Your task to perform on an android device: set an alarm Image 0: 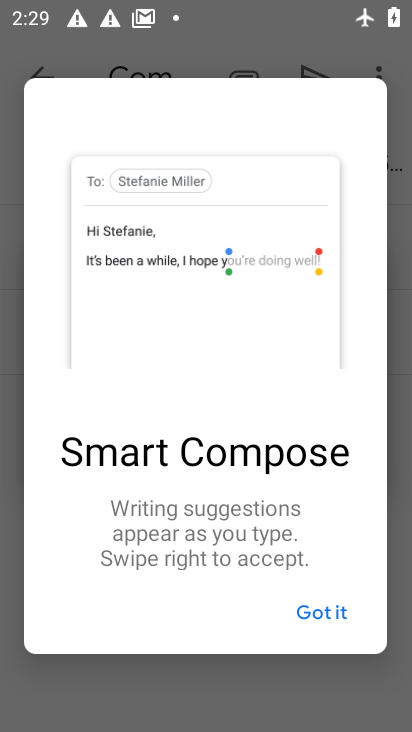
Step 0: press home button
Your task to perform on an android device: set an alarm Image 1: 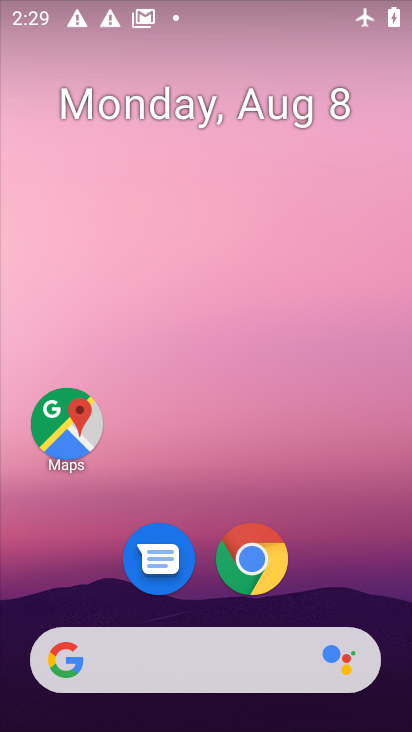
Step 1: drag from (175, 674) to (261, 131)
Your task to perform on an android device: set an alarm Image 2: 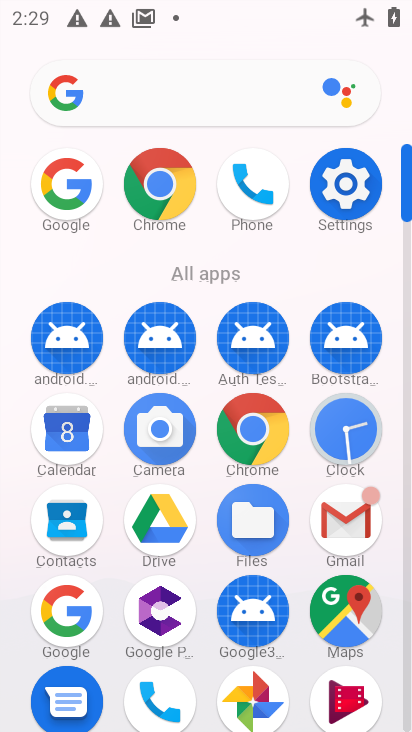
Step 2: click (348, 430)
Your task to perform on an android device: set an alarm Image 3: 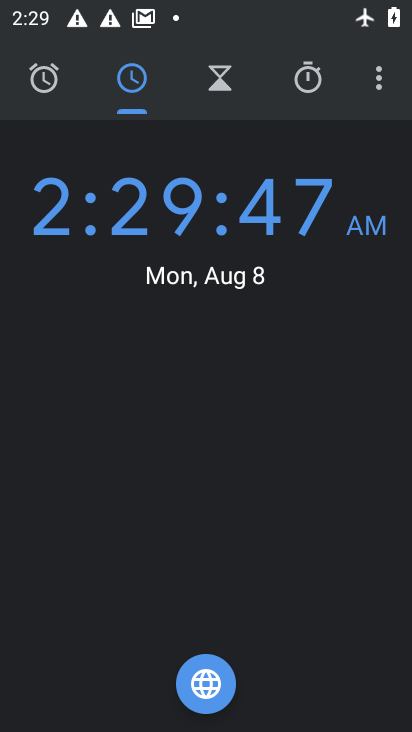
Step 3: click (40, 75)
Your task to perform on an android device: set an alarm Image 4: 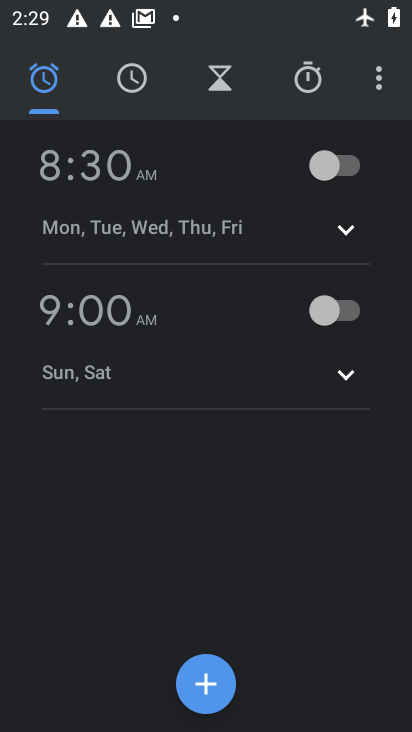
Step 4: click (93, 194)
Your task to perform on an android device: set an alarm Image 5: 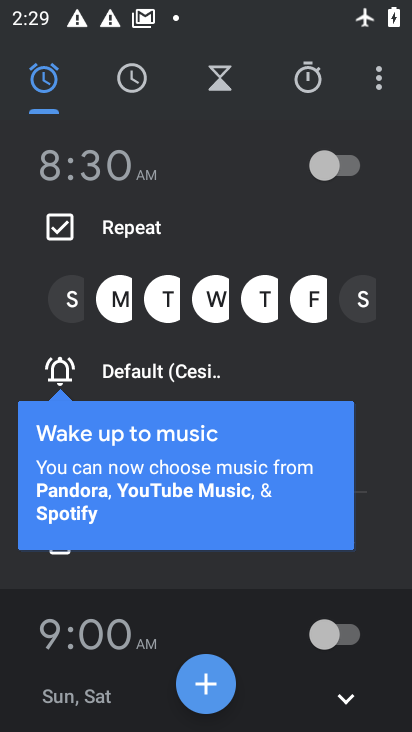
Step 5: click (155, 182)
Your task to perform on an android device: set an alarm Image 6: 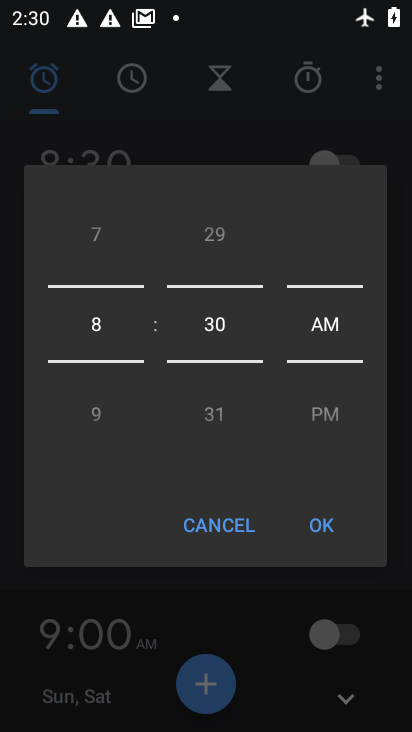
Step 6: click (105, 248)
Your task to perform on an android device: set an alarm Image 7: 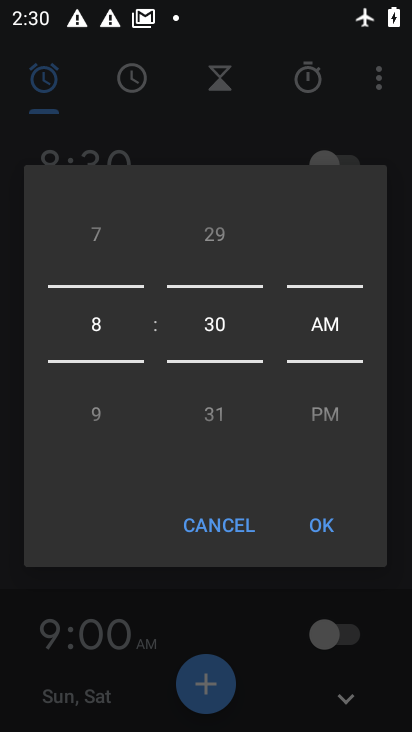
Step 7: click (105, 248)
Your task to perform on an android device: set an alarm Image 8: 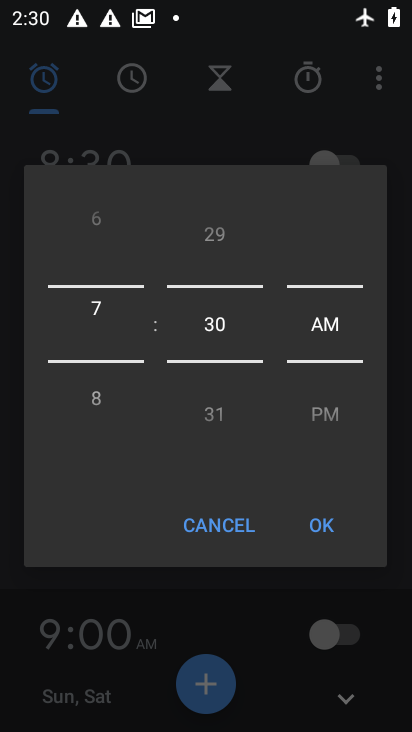
Step 8: click (105, 248)
Your task to perform on an android device: set an alarm Image 9: 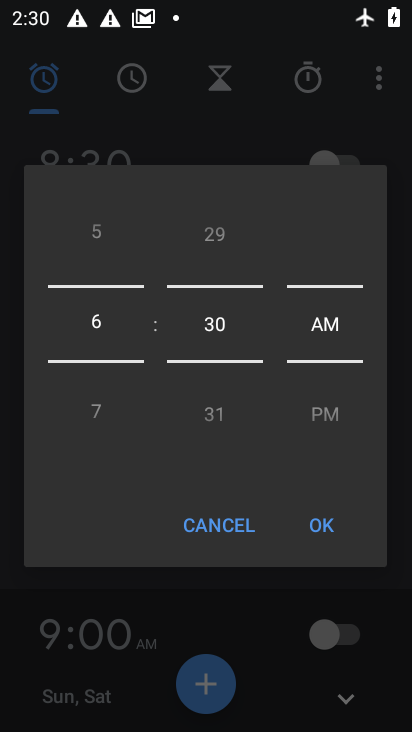
Step 9: click (105, 248)
Your task to perform on an android device: set an alarm Image 10: 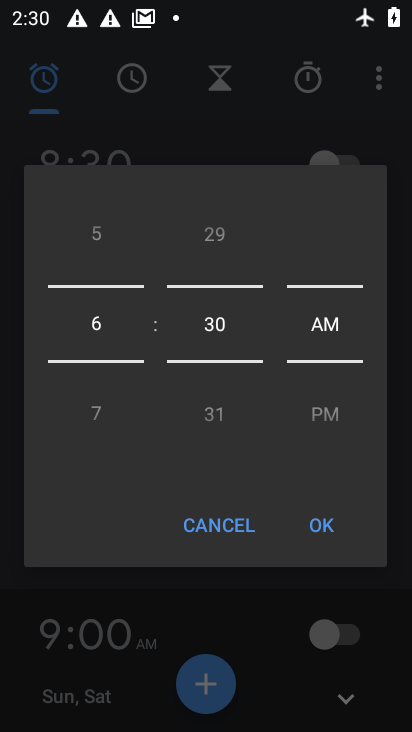
Step 10: click (105, 248)
Your task to perform on an android device: set an alarm Image 11: 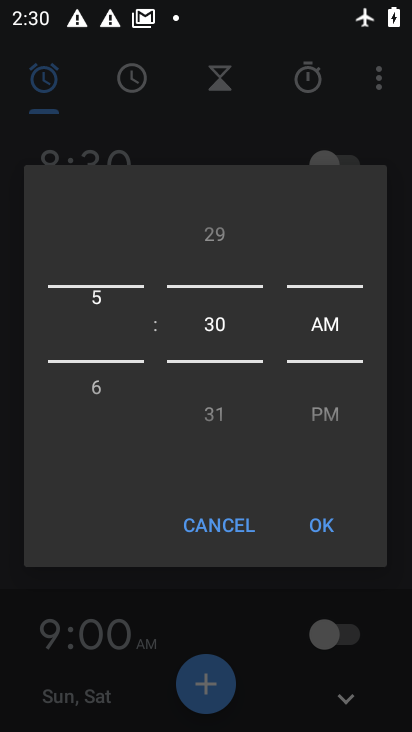
Step 11: click (105, 248)
Your task to perform on an android device: set an alarm Image 12: 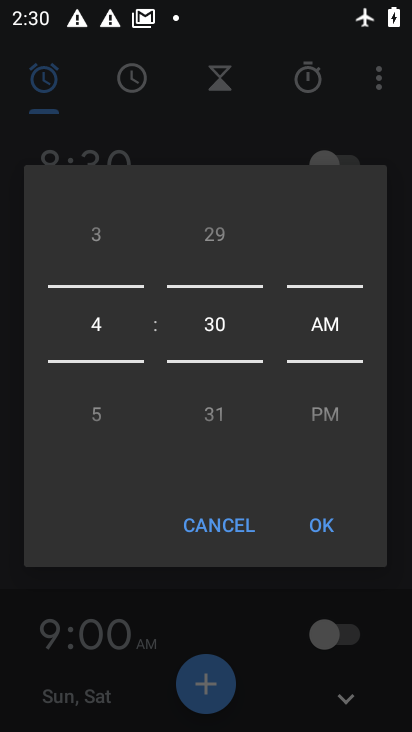
Step 12: click (105, 248)
Your task to perform on an android device: set an alarm Image 13: 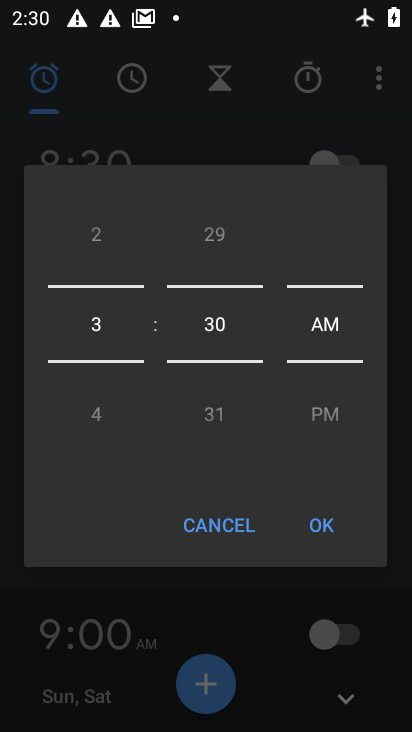
Step 13: click (239, 246)
Your task to perform on an android device: set an alarm Image 14: 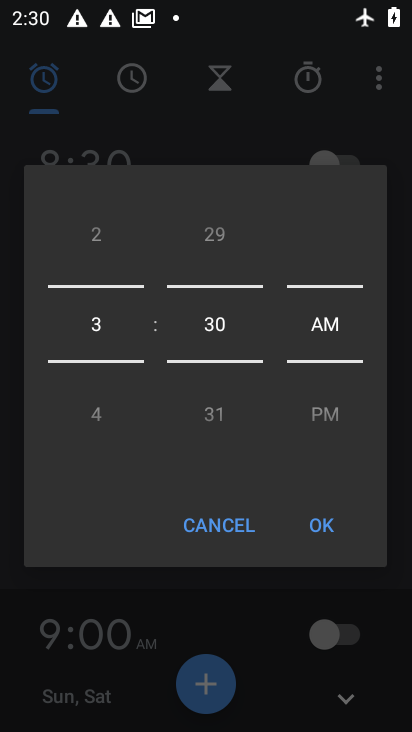
Step 14: click (239, 246)
Your task to perform on an android device: set an alarm Image 15: 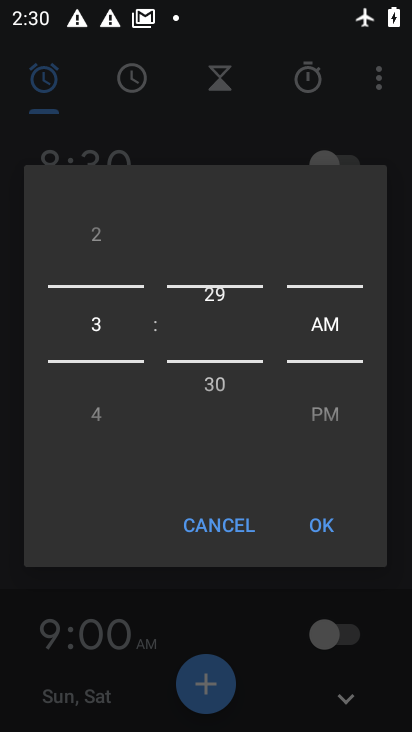
Step 15: click (239, 246)
Your task to perform on an android device: set an alarm Image 16: 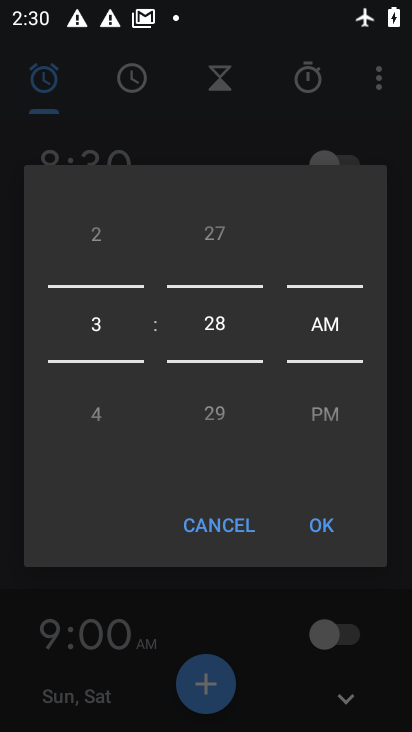
Step 16: click (239, 246)
Your task to perform on an android device: set an alarm Image 17: 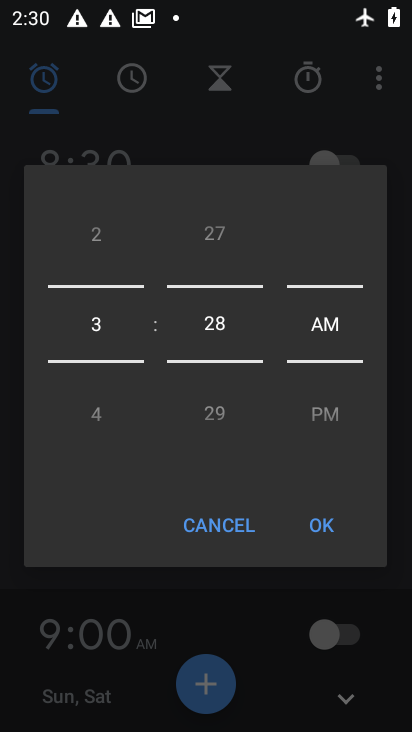
Step 17: click (239, 246)
Your task to perform on an android device: set an alarm Image 18: 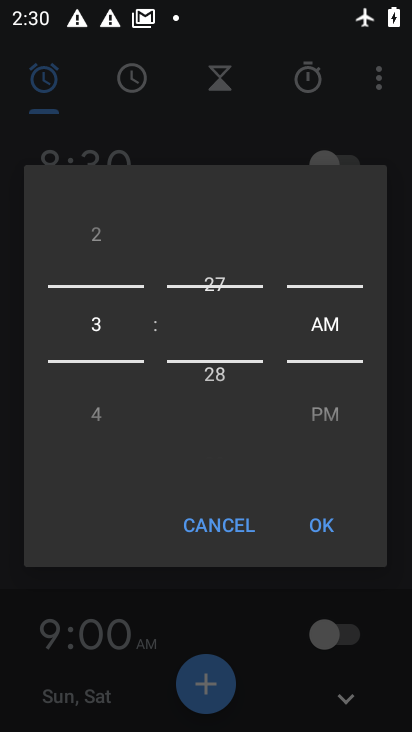
Step 18: click (239, 246)
Your task to perform on an android device: set an alarm Image 19: 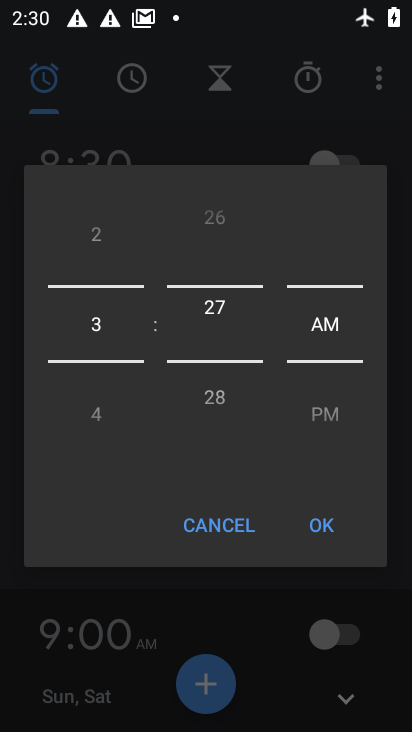
Step 19: click (239, 246)
Your task to perform on an android device: set an alarm Image 20: 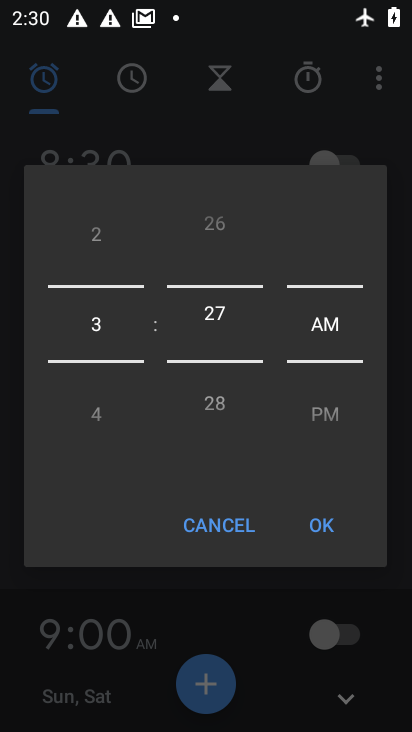
Step 20: click (239, 246)
Your task to perform on an android device: set an alarm Image 21: 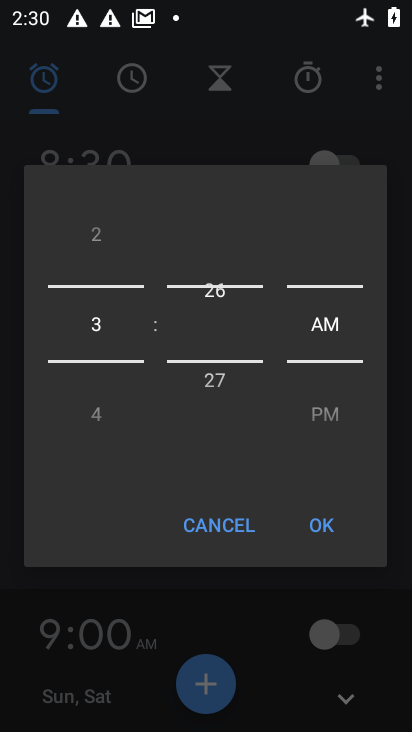
Step 21: click (239, 246)
Your task to perform on an android device: set an alarm Image 22: 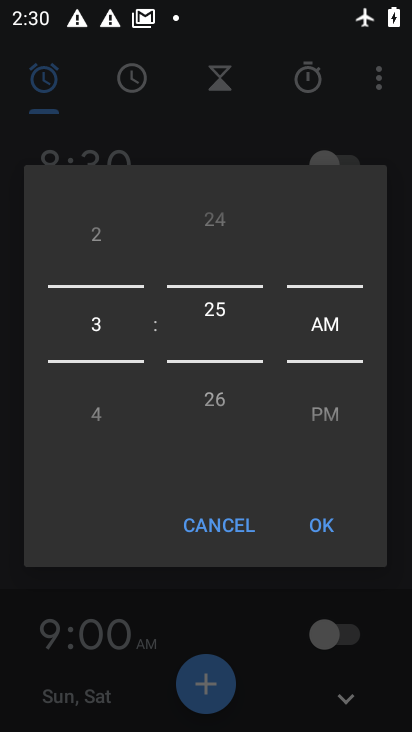
Step 22: click (239, 246)
Your task to perform on an android device: set an alarm Image 23: 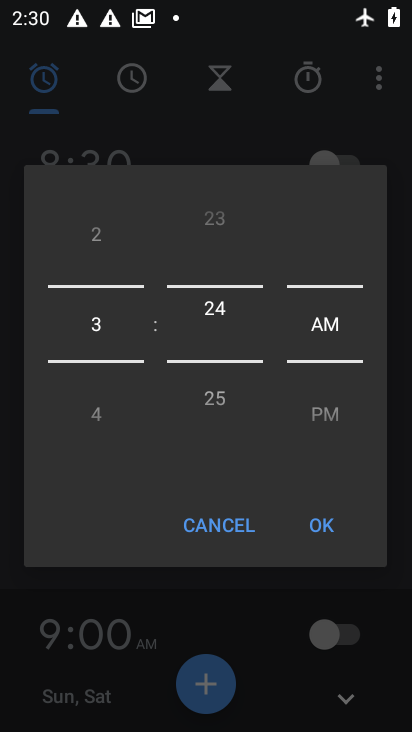
Step 23: click (239, 246)
Your task to perform on an android device: set an alarm Image 24: 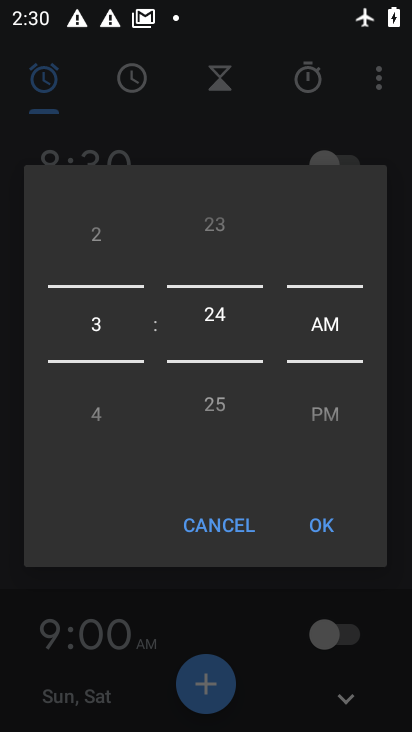
Step 24: click (239, 246)
Your task to perform on an android device: set an alarm Image 25: 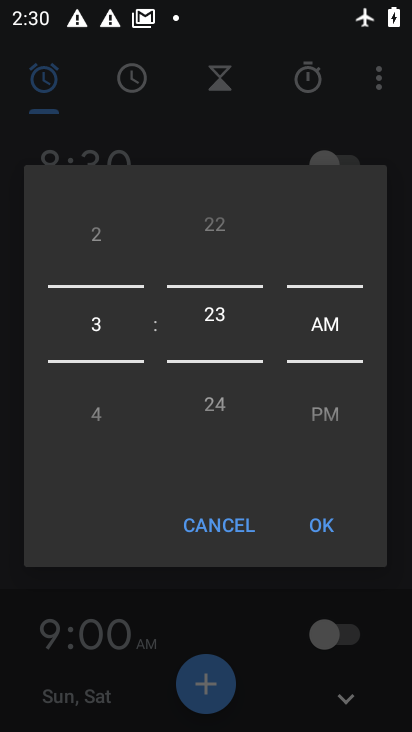
Step 25: click (239, 246)
Your task to perform on an android device: set an alarm Image 26: 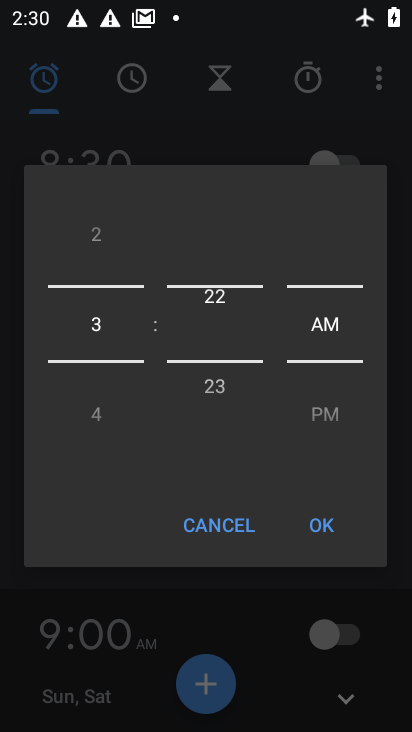
Step 26: click (239, 246)
Your task to perform on an android device: set an alarm Image 27: 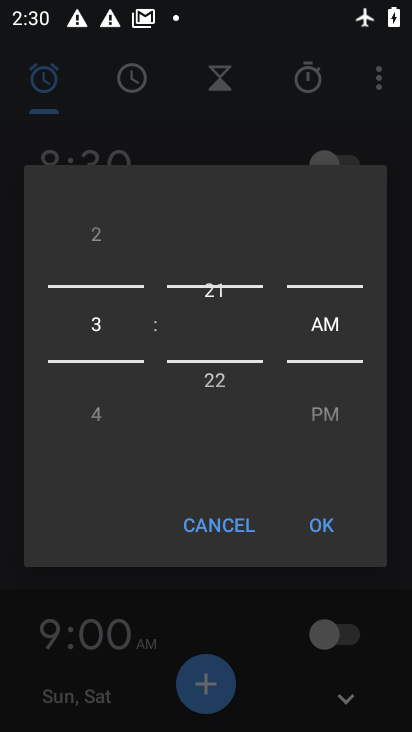
Step 27: click (239, 246)
Your task to perform on an android device: set an alarm Image 28: 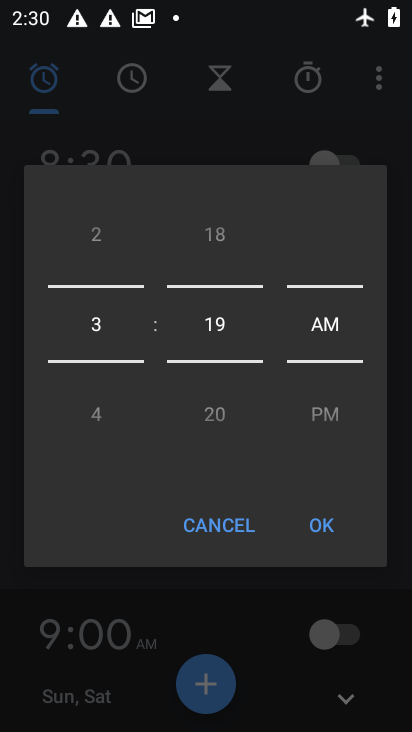
Step 28: click (348, 402)
Your task to perform on an android device: set an alarm Image 29: 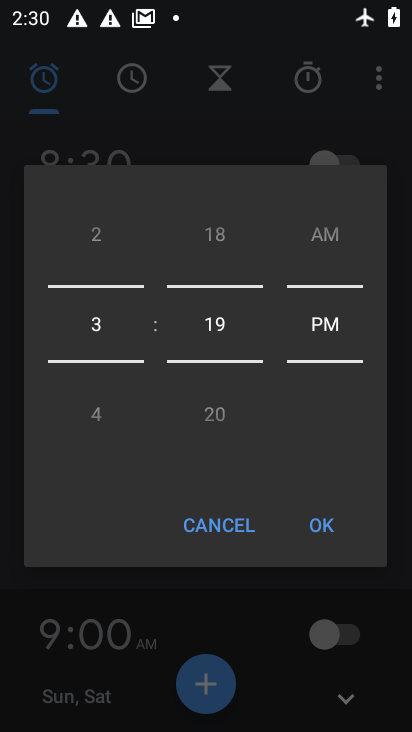
Step 29: click (324, 516)
Your task to perform on an android device: set an alarm Image 30: 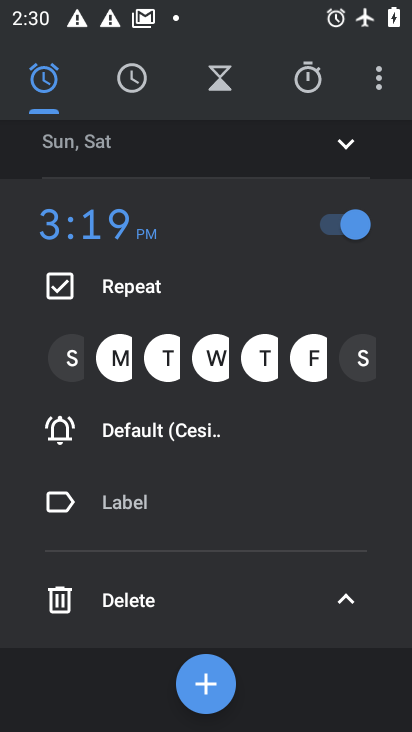
Step 30: click (342, 593)
Your task to perform on an android device: set an alarm Image 31: 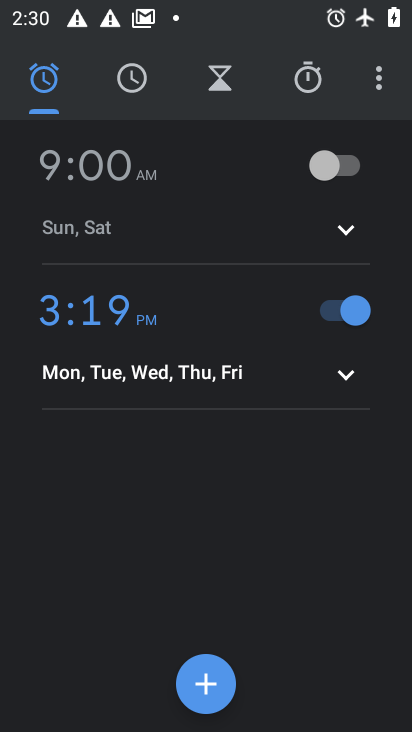
Step 31: task complete